Your task to perform on an android device: turn off priority inbox in the gmail app Image 0: 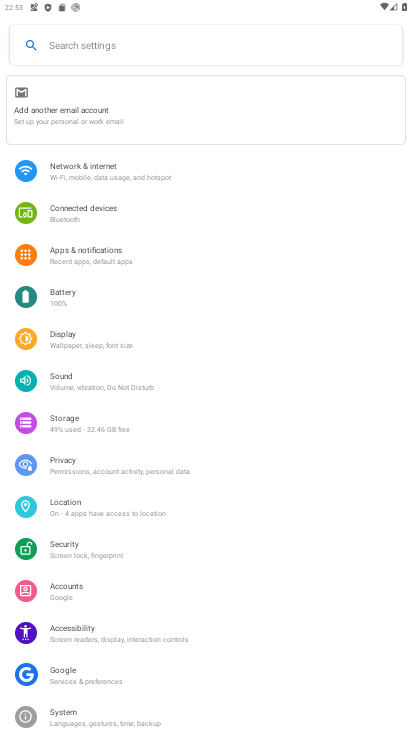
Step 0: press home button
Your task to perform on an android device: turn off priority inbox in the gmail app Image 1: 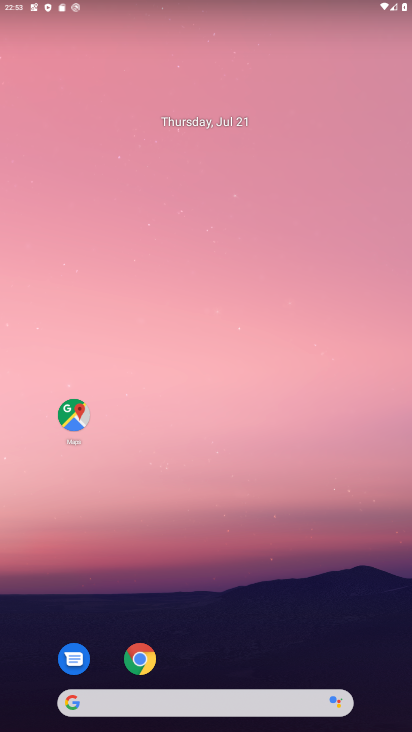
Step 1: drag from (276, 634) to (212, 41)
Your task to perform on an android device: turn off priority inbox in the gmail app Image 2: 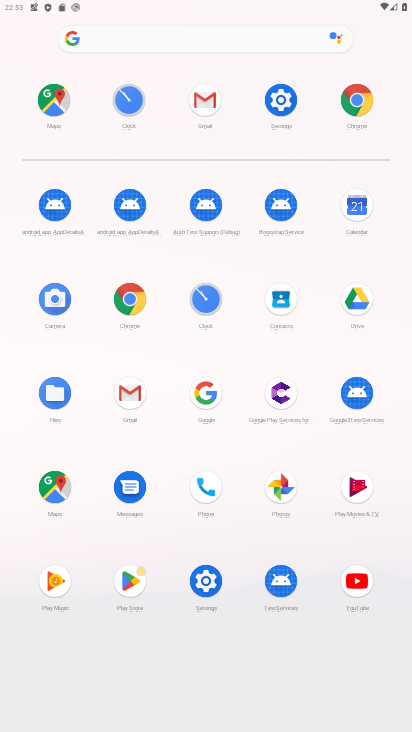
Step 2: click (204, 97)
Your task to perform on an android device: turn off priority inbox in the gmail app Image 3: 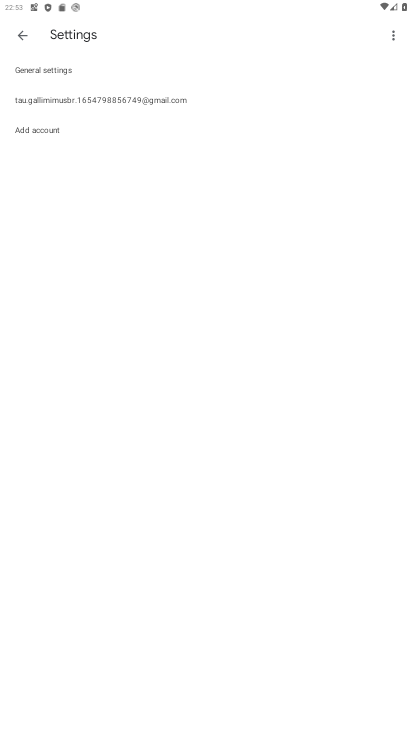
Step 3: click (152, 103)
Your task to perform on an android device: turn off priority inbox in the gmail app Image 4: 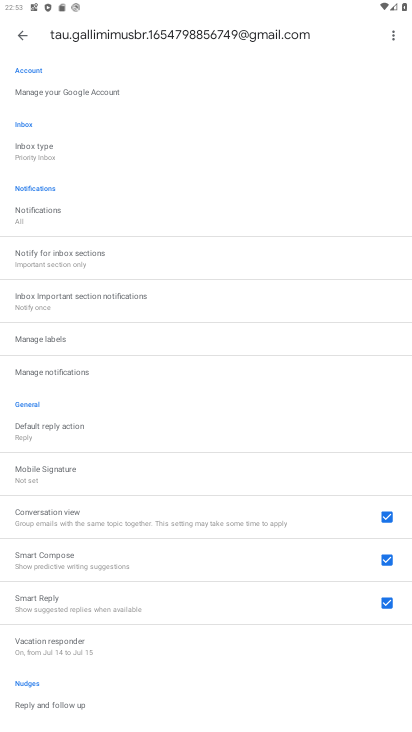
Step 4: click (44, 149)
Your task to perform on an android device: turn off priority inbox in the gmail app Image 5: 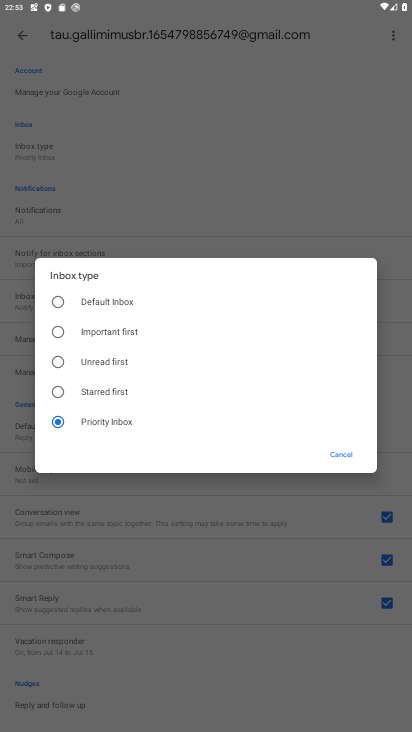
Step 5: task complete